Your task to perform on an android device: Clear the cart on target.com. Image 0: 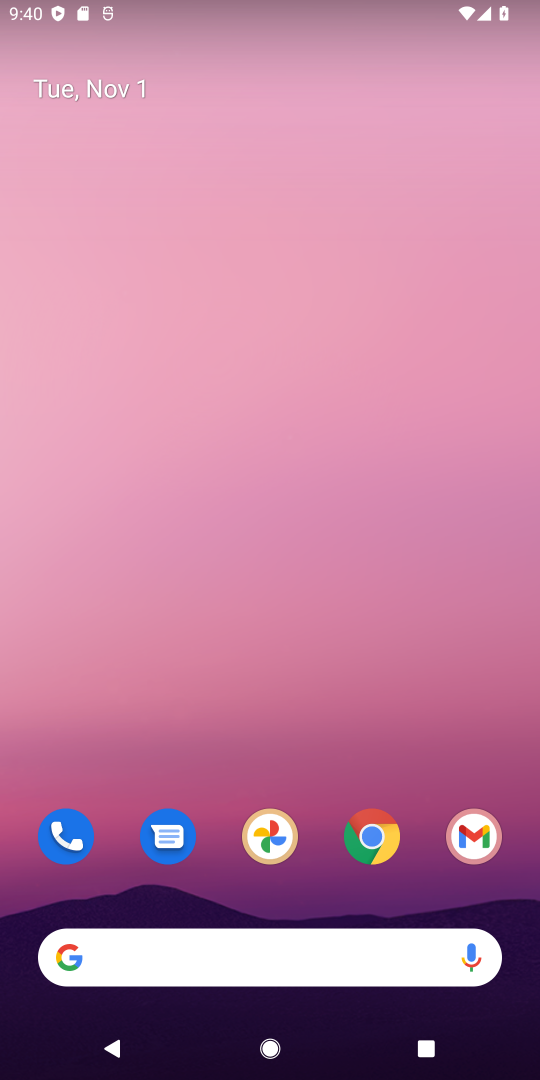
Step 0: click (368, 842)
Your task to perform on an android device: Clear the cart on target.com. Image 1: 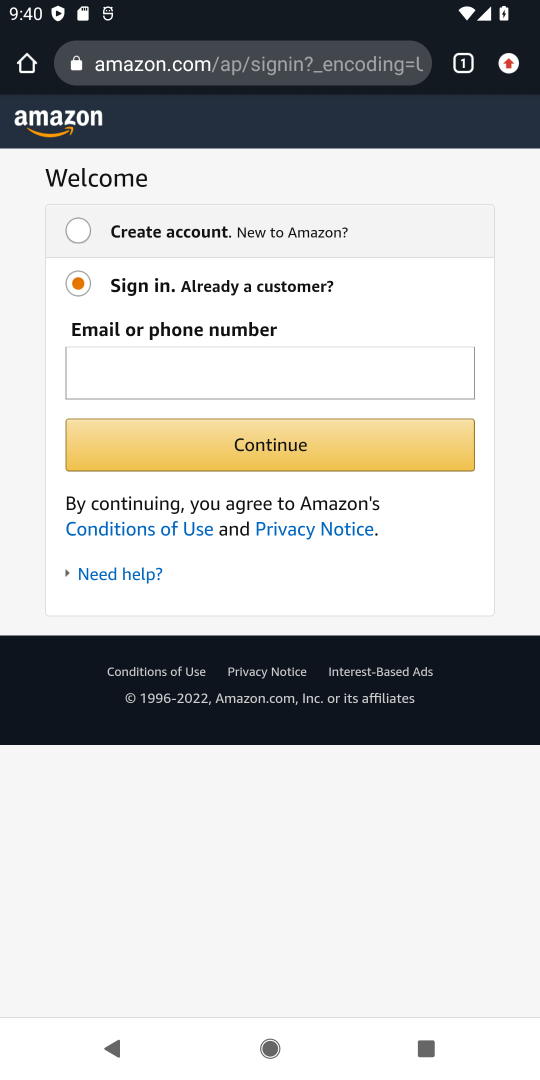
Step 1: click (341, 69)
Your task to perform on an android device: Clear the cart on target.com. Image 2: 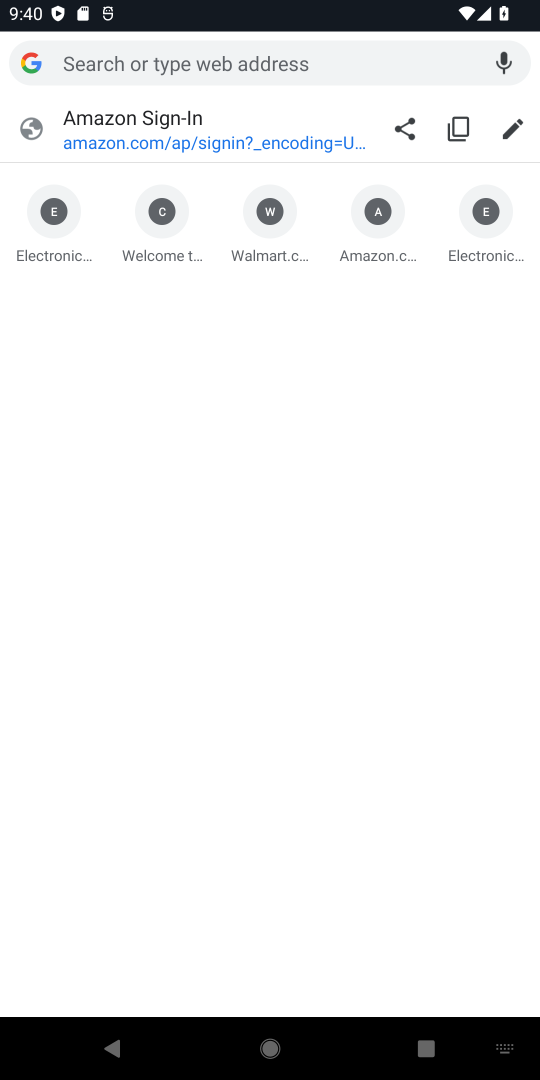
Step 2: type "target.com"
Your task to perform on an android device: Clear the cart on target.com. Image 3: 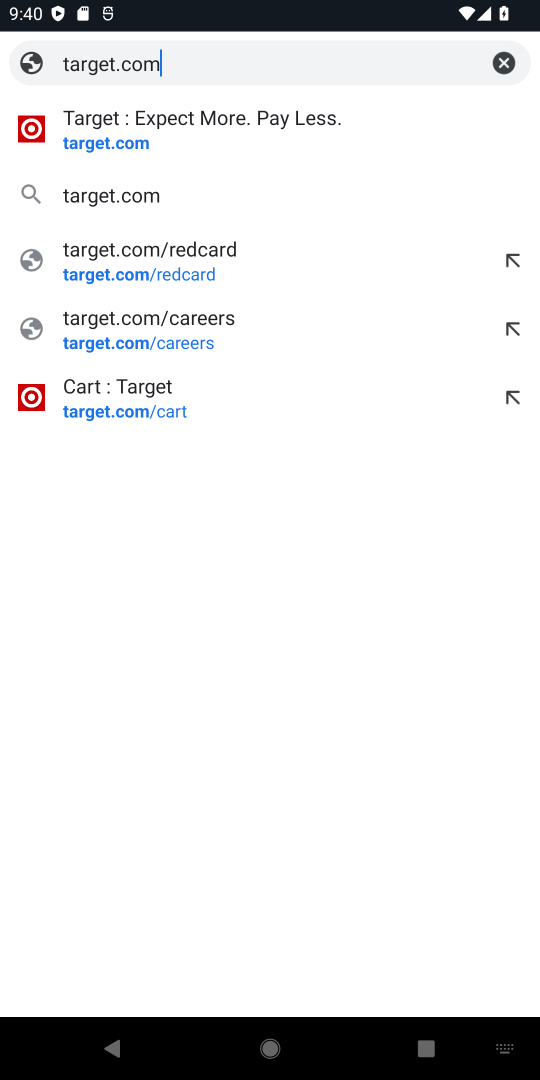
Step 3: click (227, 131)
Your task to perform on an android device: Clear the cart on target.com. Image 4: 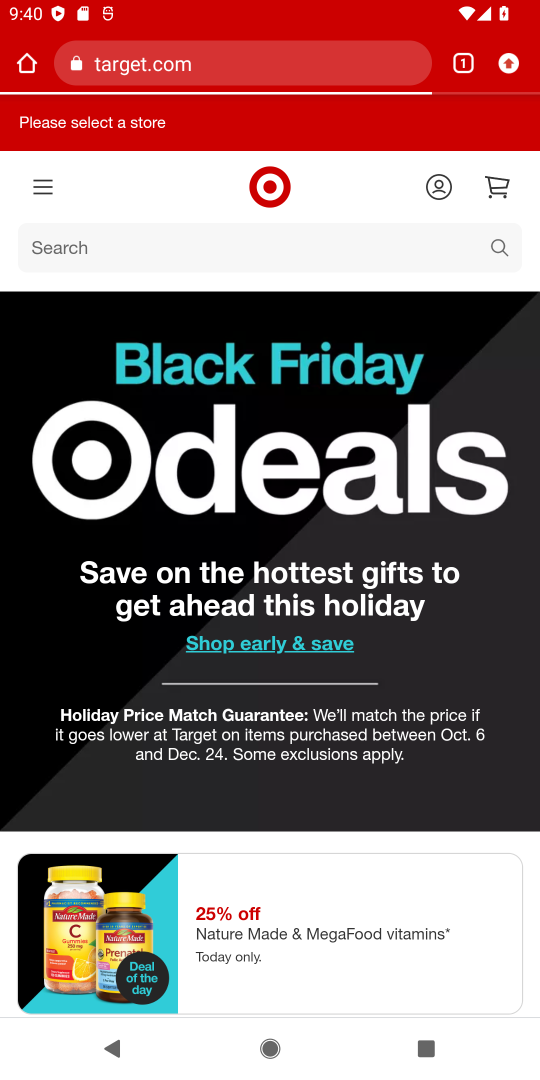
Step 4: click (216, 240)
Your task to perform on an android device: Clear the cart on target.com. Image 5: 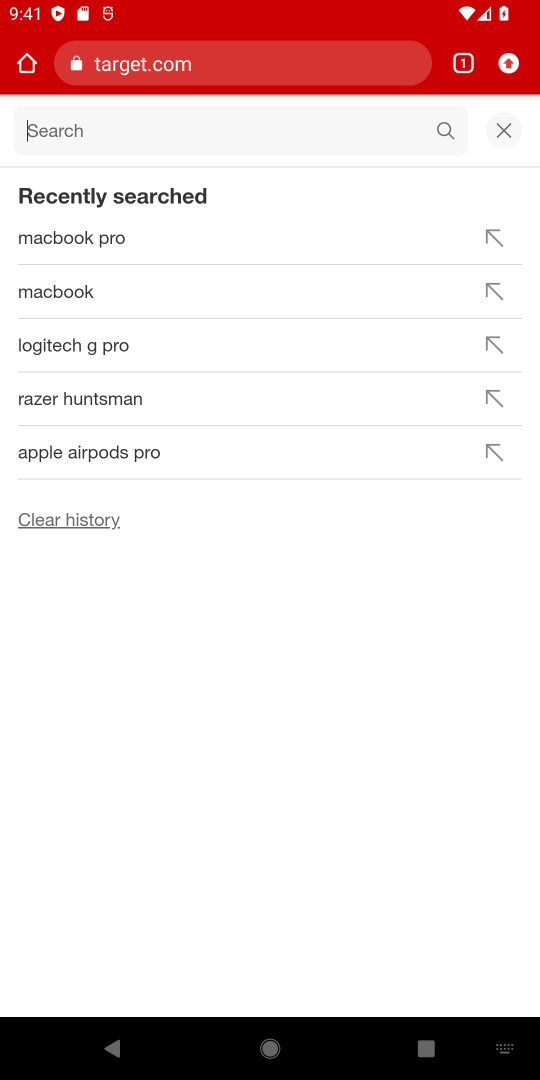
Step 5: click (519, 119)
Your task to perform on an android device: Clear the cart on target.com. Image 6: 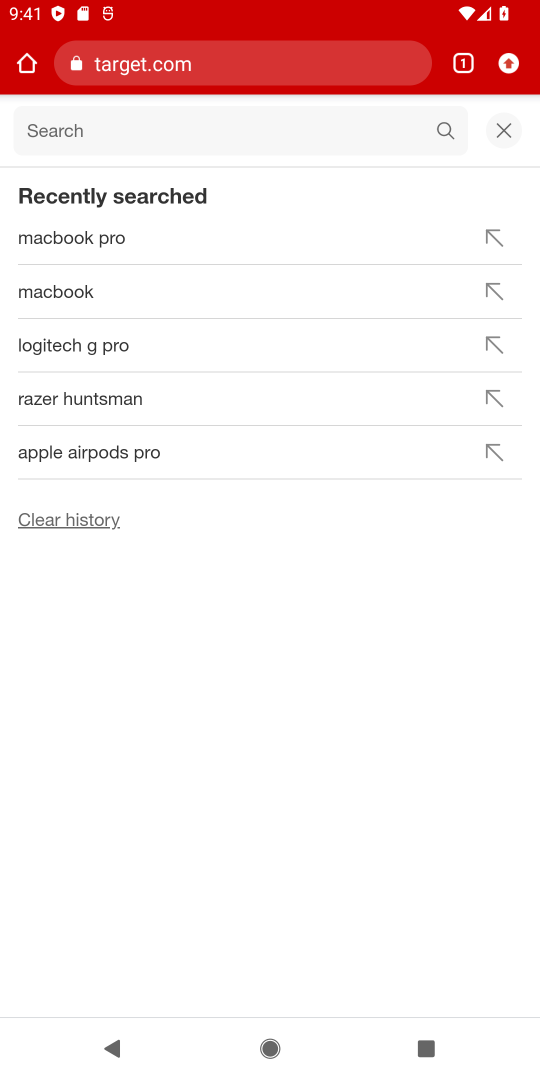
Step 6: click (503, 127)
Your task to perform on an android device: Clear the cart on target.com. Image 7: 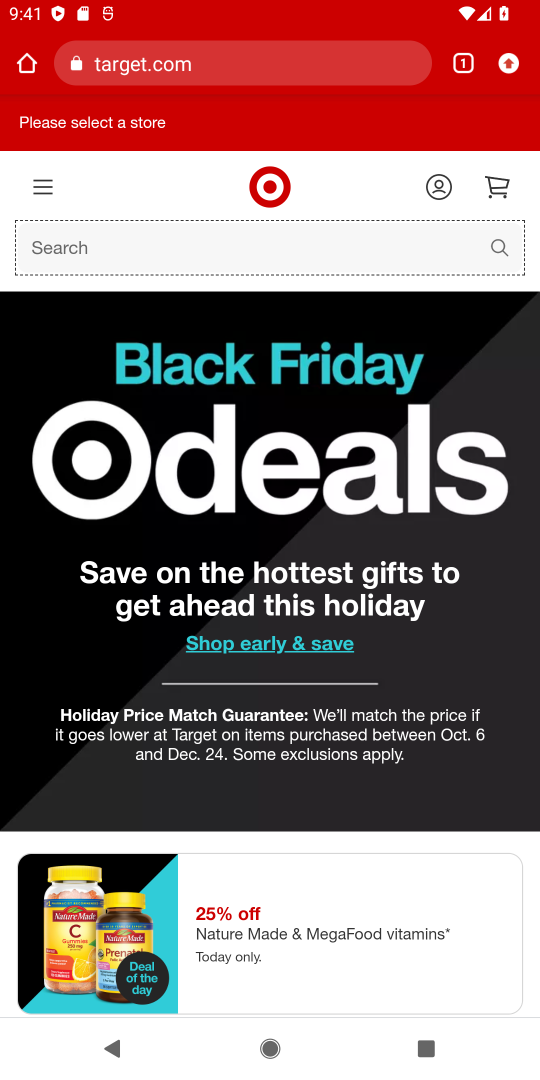
Step 7: click (503, 184)
Your task to perform on an android device: Clear the cart on target.com. Image 8: 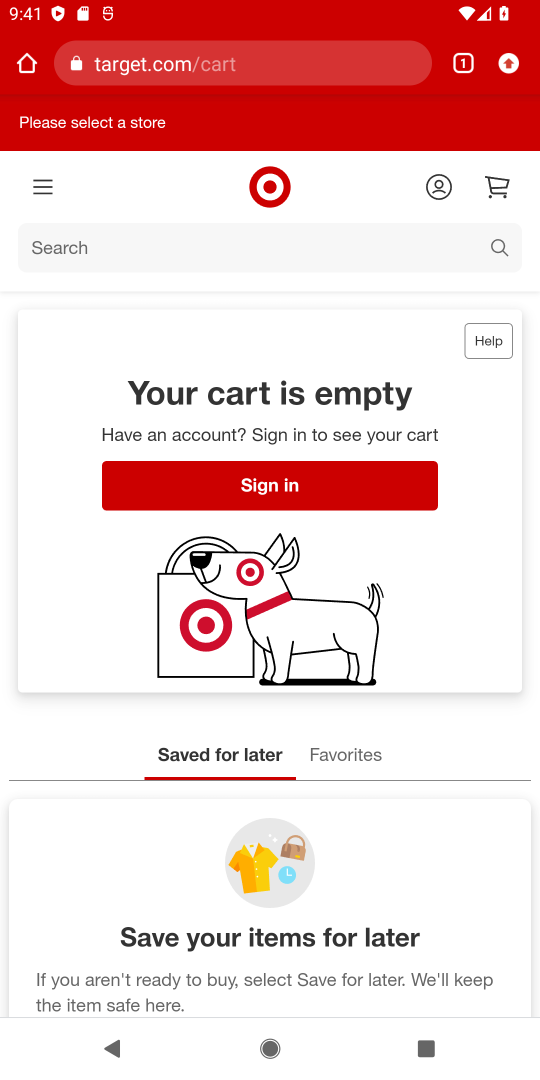
Step 8: press back button
Your task to perform on an android device: Clear the cart on target.com. Image 9: 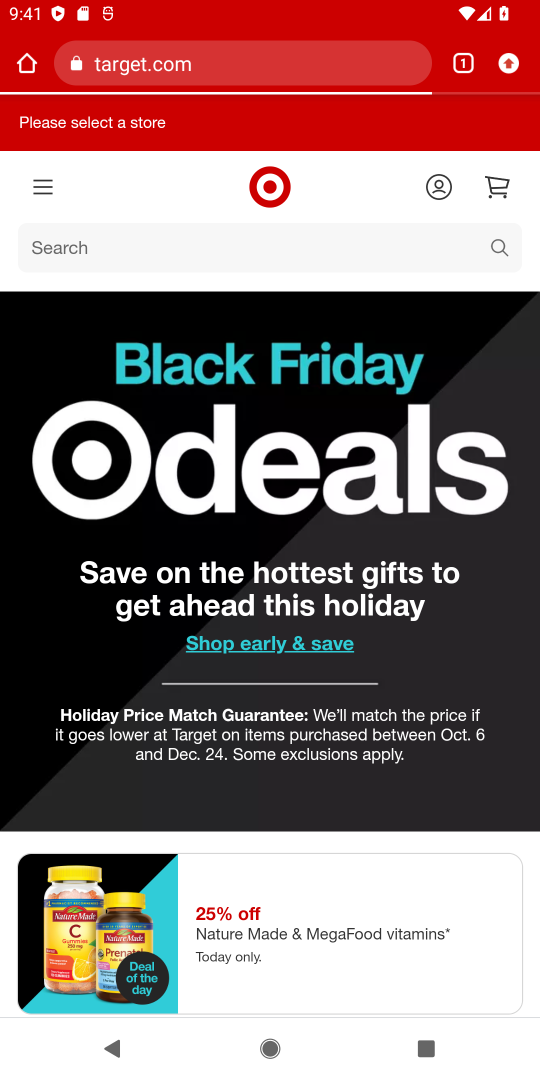
Step 9: drag from (464, 730) to (470, 328)
Your task to perform on an android device: Clear the cart on target.com. Image 10: 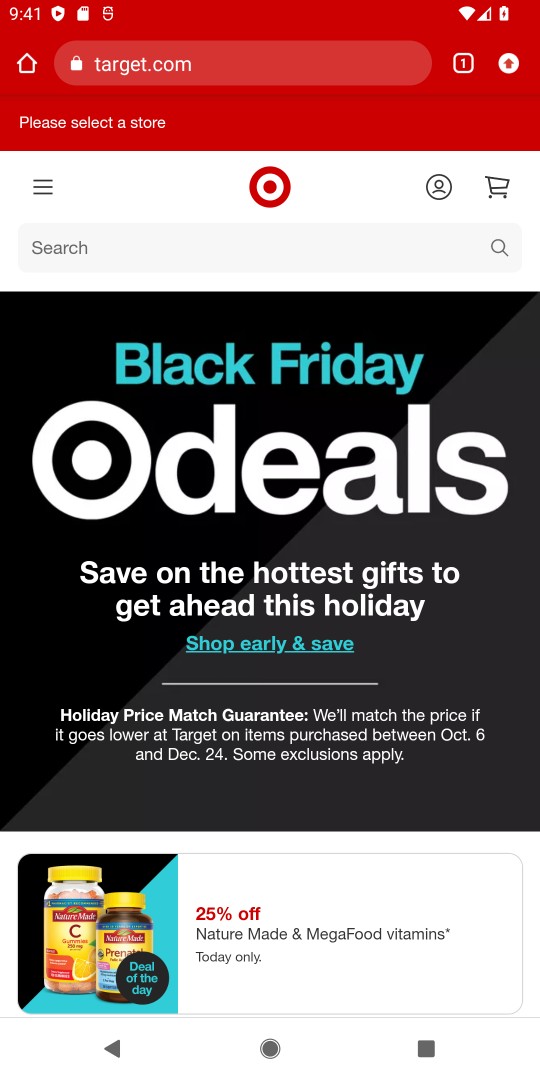
Step 10: drag from (372, 706) to (393, 338)
Your task to perform on an android device: Clear the cart on target.com. Image 11: 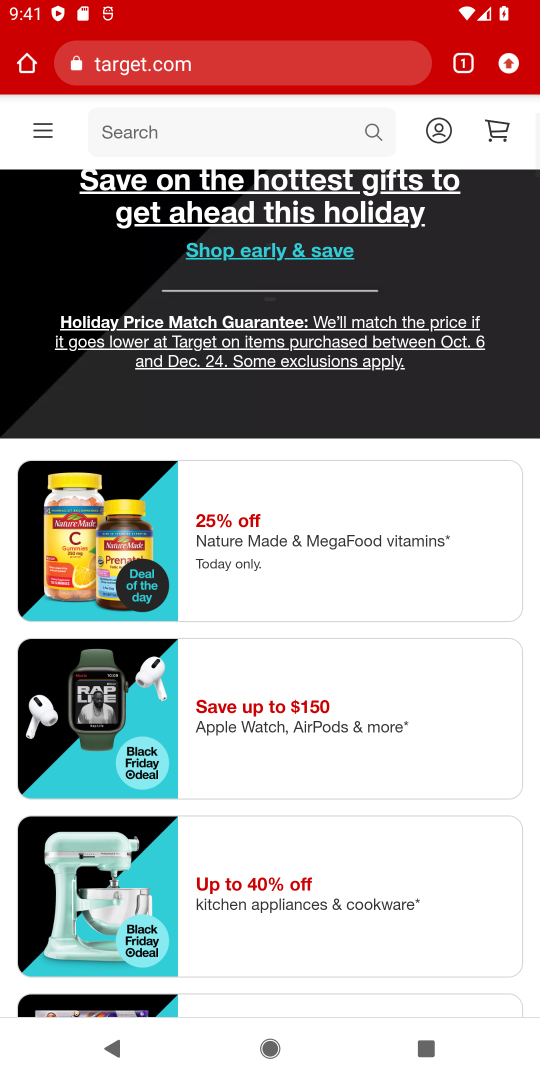
Step 11: drag from (341, 600) to (368, 363)
Your task to perform on an android device: Clear the cart on target.com. Image 12: 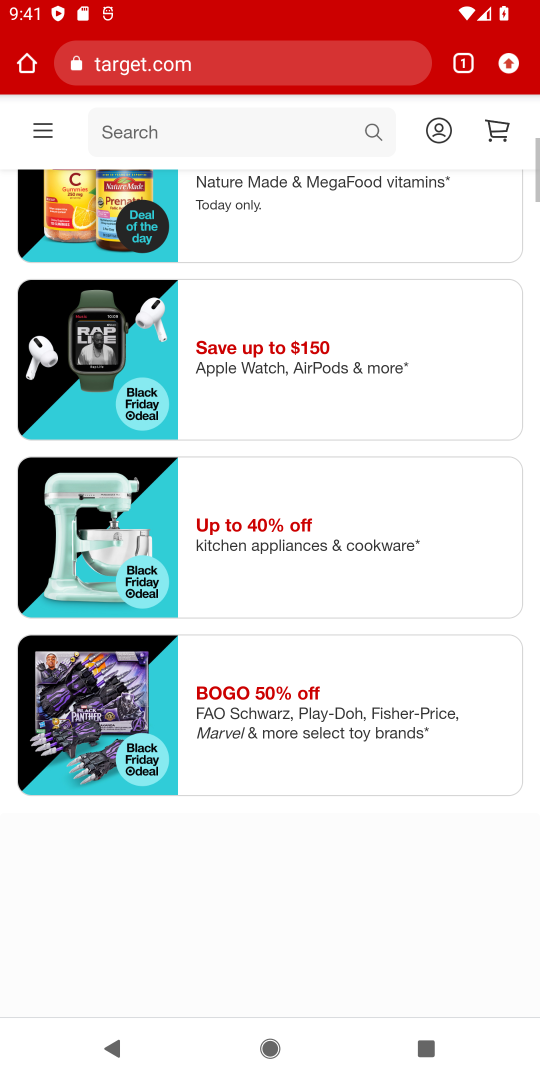
Step 12: click (390, 267)
Your task to perform on an android device: Clear the cart on target.com. Image 13: 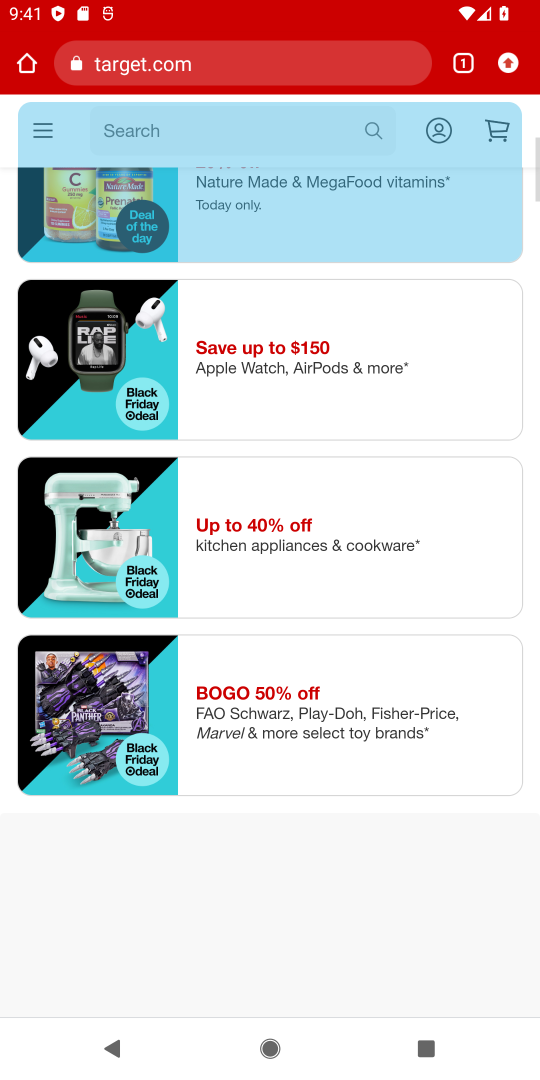
Step 13: drag from (366, 768) to (378, 199)
Your task to perform on an android device: Clear the cart on target.com. Image 14: 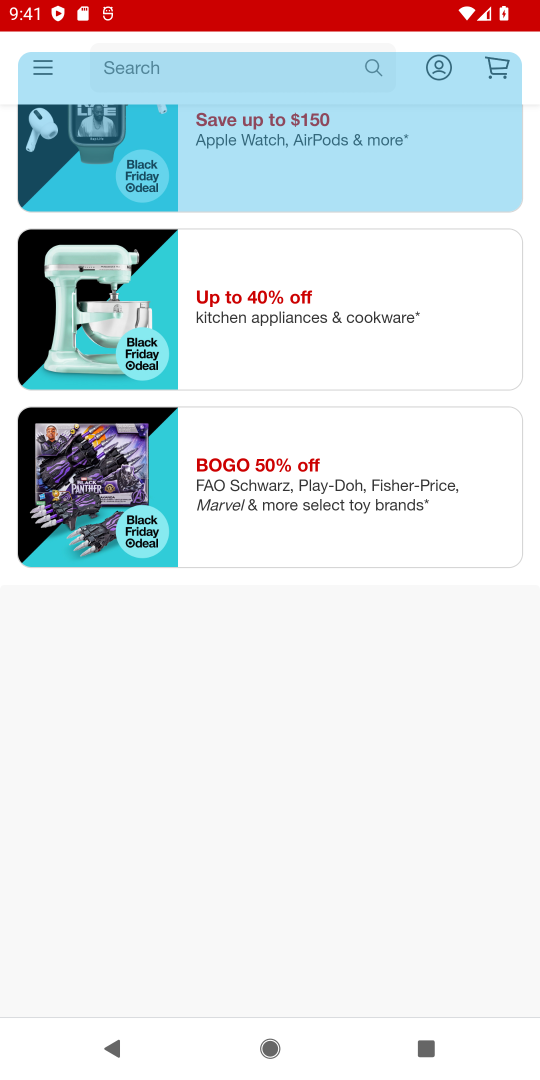
Step 14: drag from (274, 717) to (327, 231)
Your task to perform on an android device: Clear the cart on target.com. Image 15: 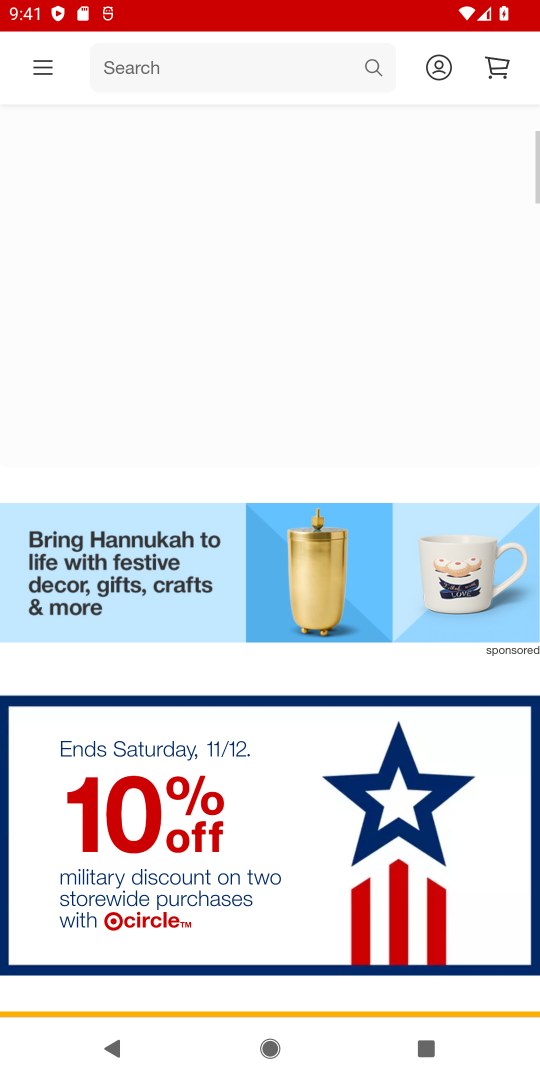
Step 15: drag from (300, 617) to (356, 295)
Your task to perform on an android device: Clear the cart on target.com. Image 16: 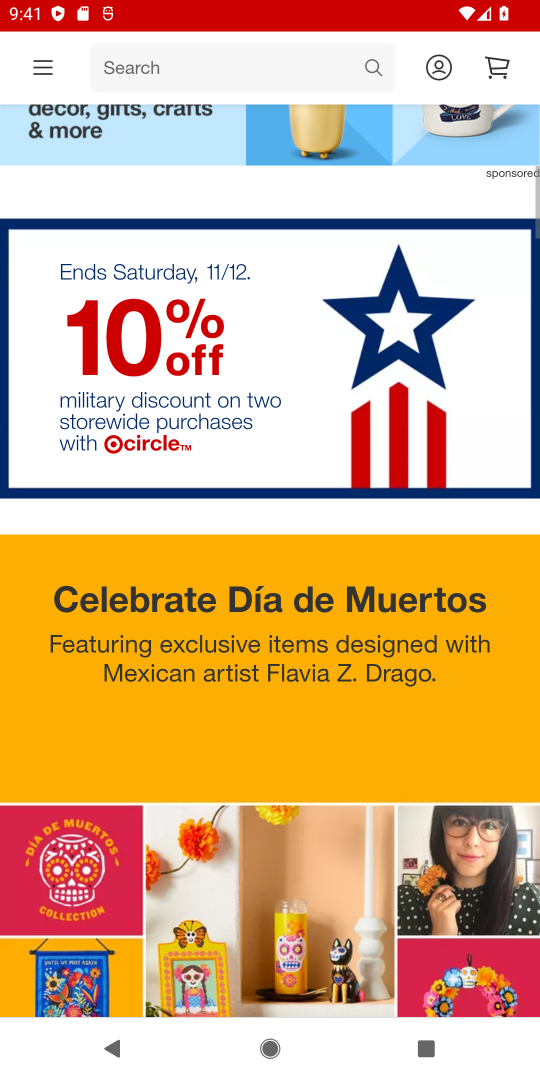
Step 16: drag from (307, 586) to (346, 229)
Your task to perform on an android device: Clear the cart on target.com. Image 17: 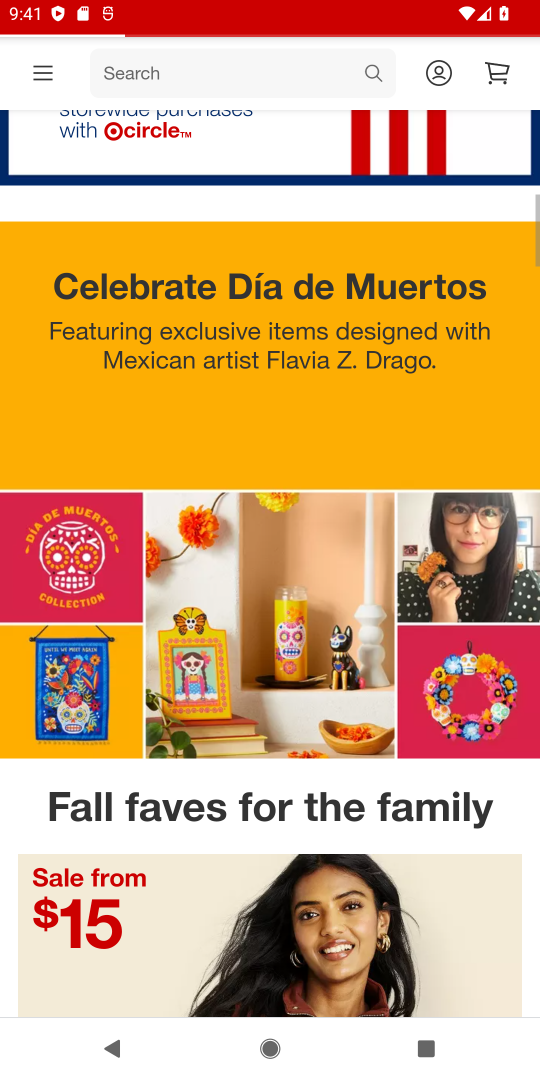
Step 17: drag from (307, 521) to (362, 293)
Your task to perform on an android device: Clear the cart on target.com. Image 18: 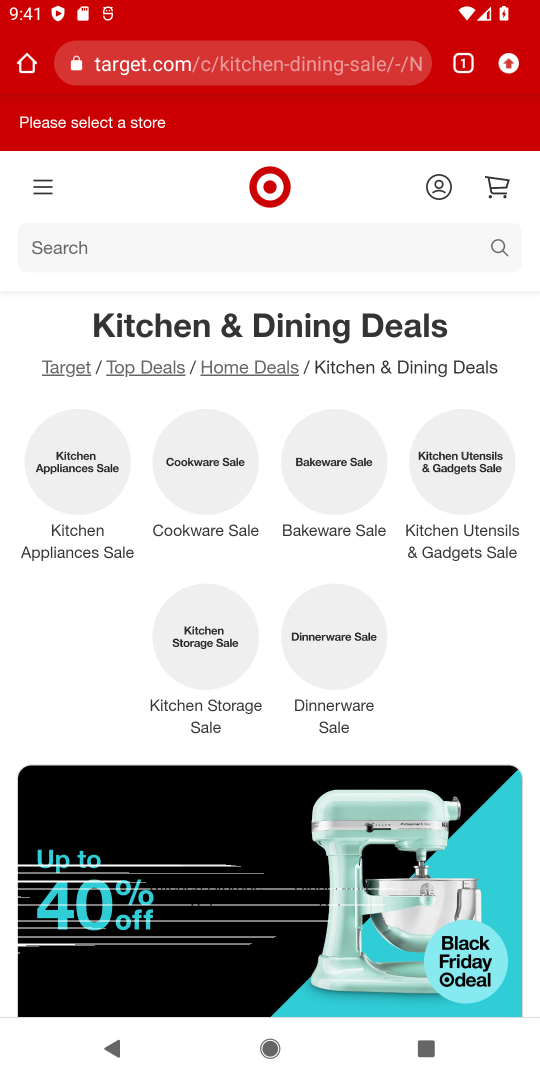
Step 18: press back button
Your task to perform on an android device: Clear the cart on target.com. Image 19: 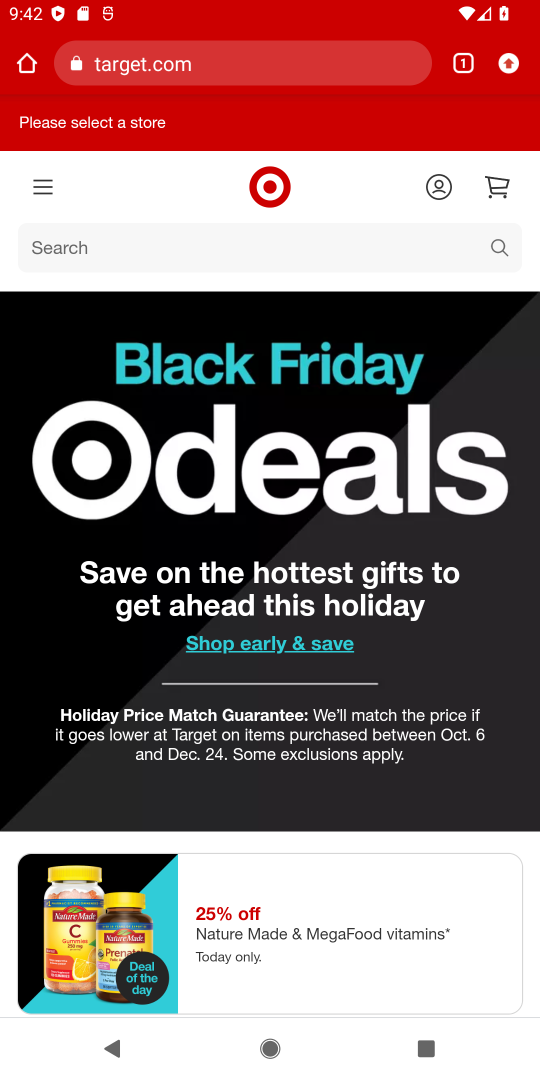
Step 19: drag from (364, 796) to (449, 279)
Your task to perform on an android device: Clear the cart on target.com. Image 20: 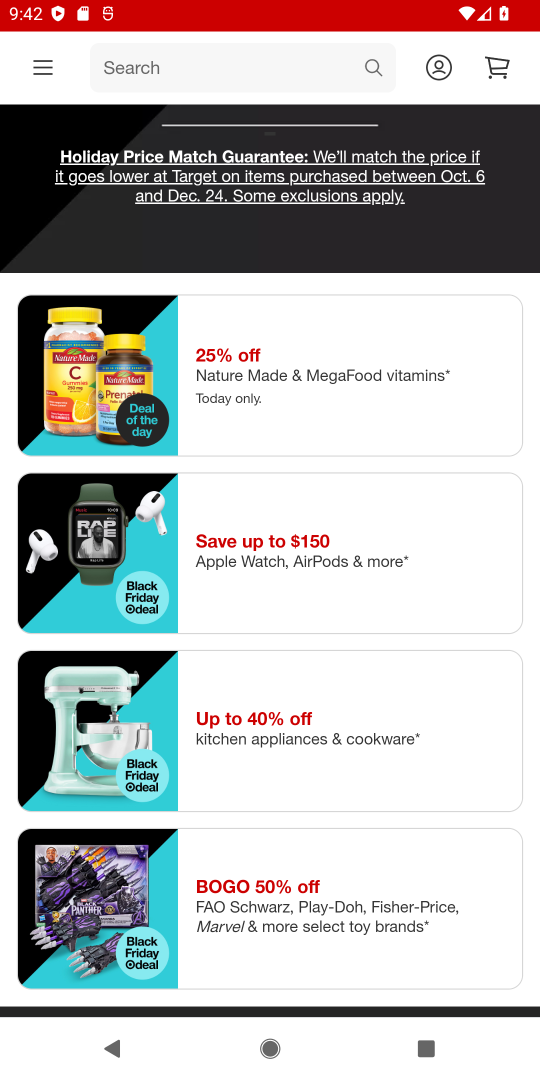
Step 20: drag from (346, 706) to (429, 335)
Your task to perform on an android device: Clear the cart on target.com. Image 21: 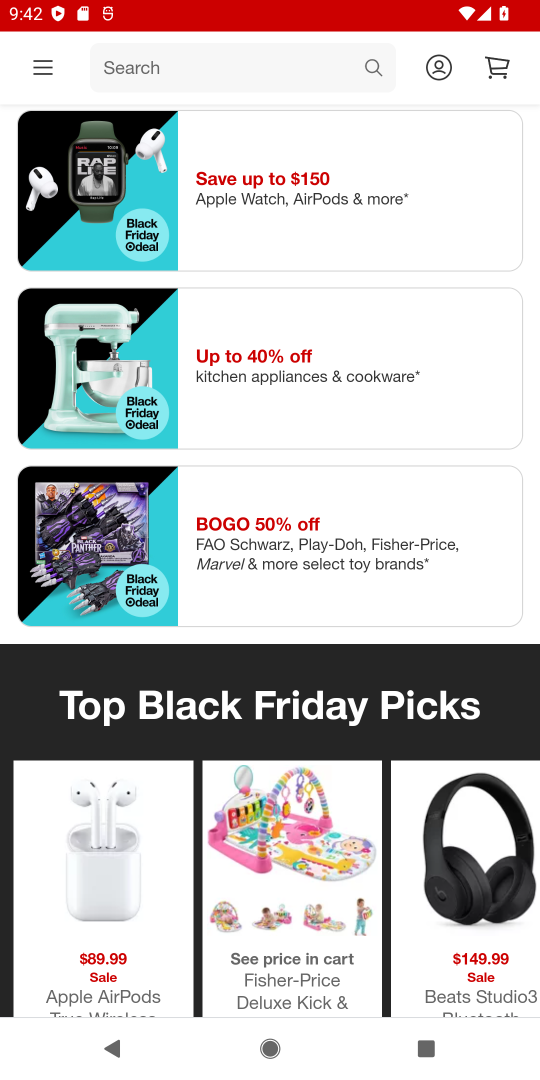
Step 21: drag from (337, 484) to (382, 285)
Your task to perform on an android device: Clear the cart on target.com. Image 22: 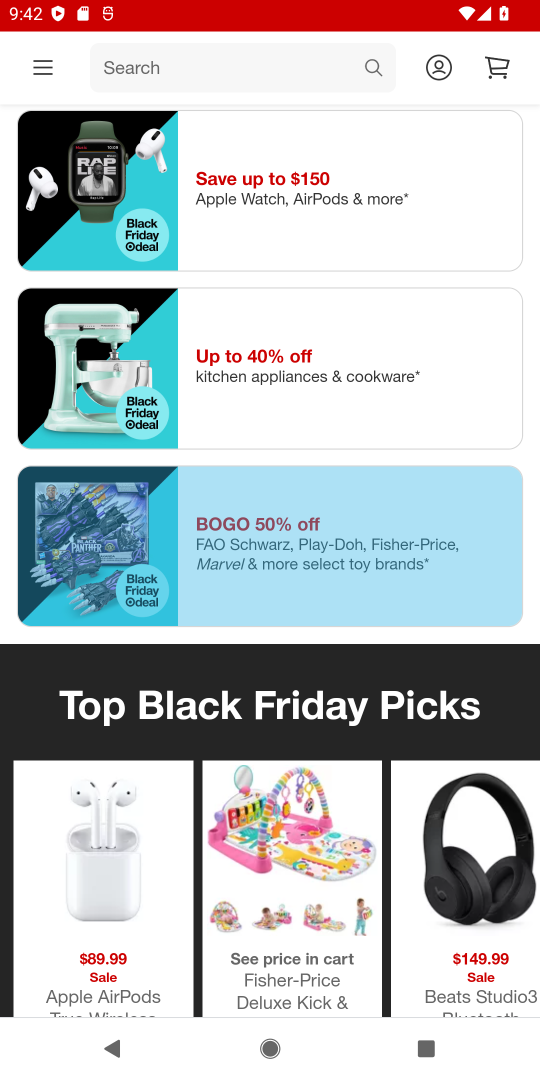
Step 22: drag from (381, 588) to (400, 184)
Your task to perform on an android device: Clear the cart on target.com. Image 23: 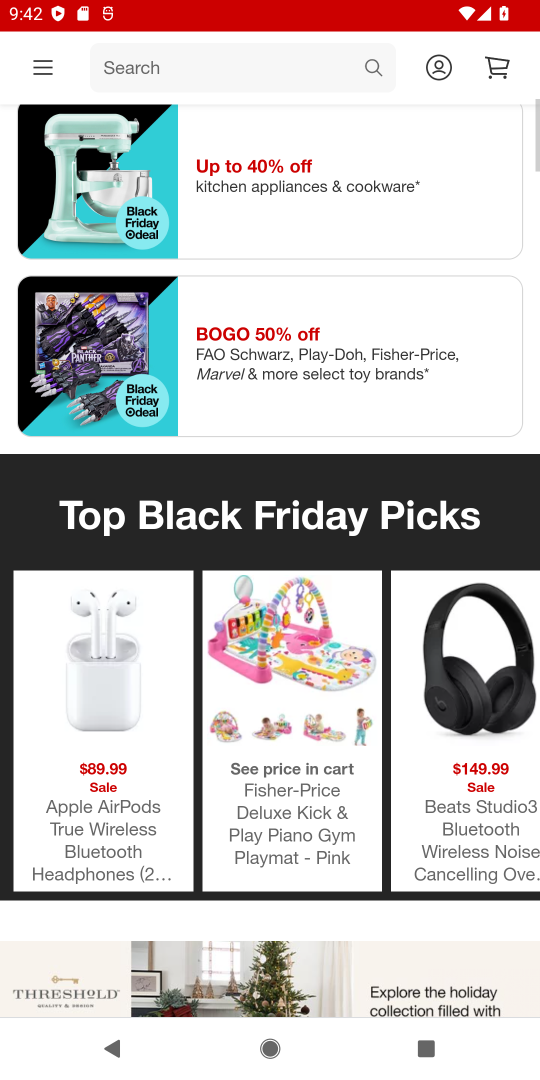
Step 23: drag from (374, 444) to (434, 185)
Your task to perform on an android device: Clear the cart on target.com. Image 24: 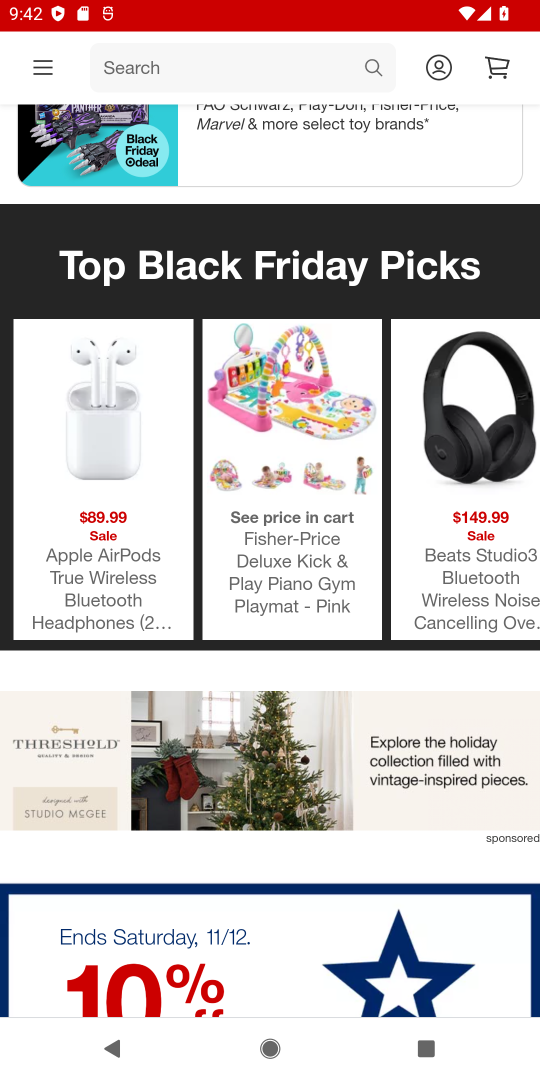
Step 24: drag from (272, 636) to (338, 234)
Your task to perform on an android device: Clear the cart on target.com. Image 25: 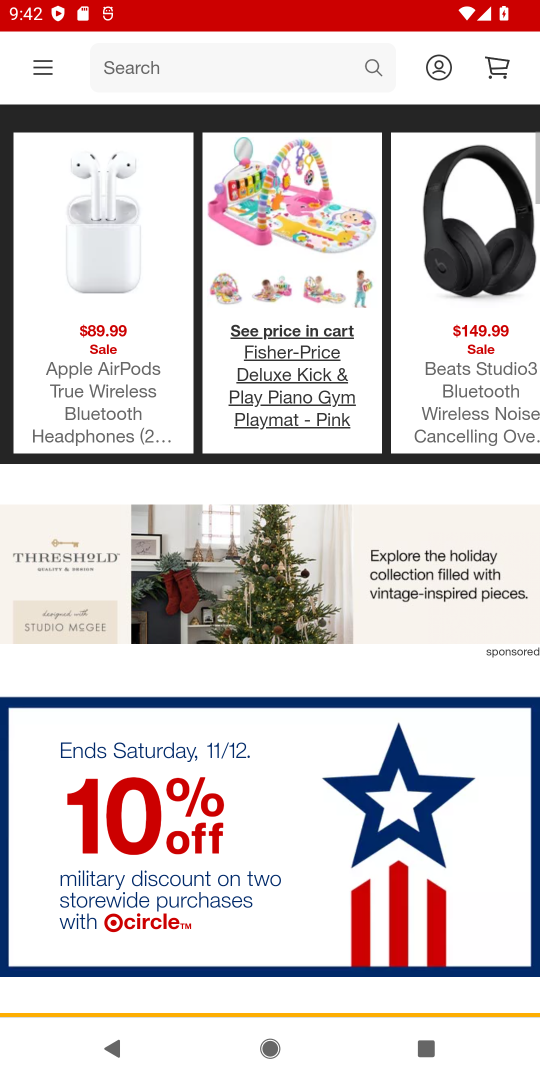
Step 25: drag from (295, 508) to (328, 271)
Your task to perform on an android device: Clear the cart on target.com. Image 26: 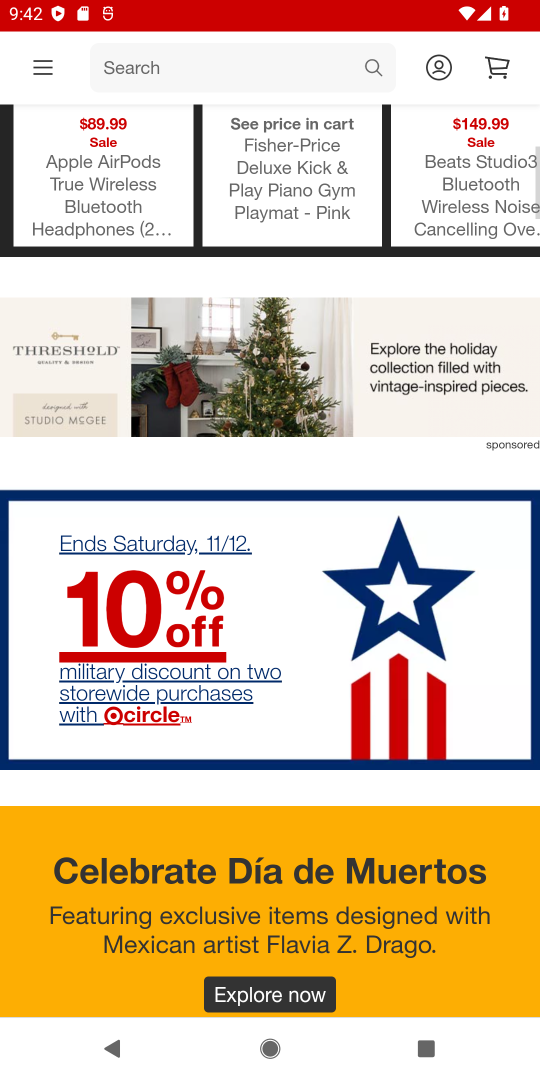
Step 26: drag from (316, 412) to (363, 223)
Your task to perform on an android device: Clear the cart on target.com. Image 27: 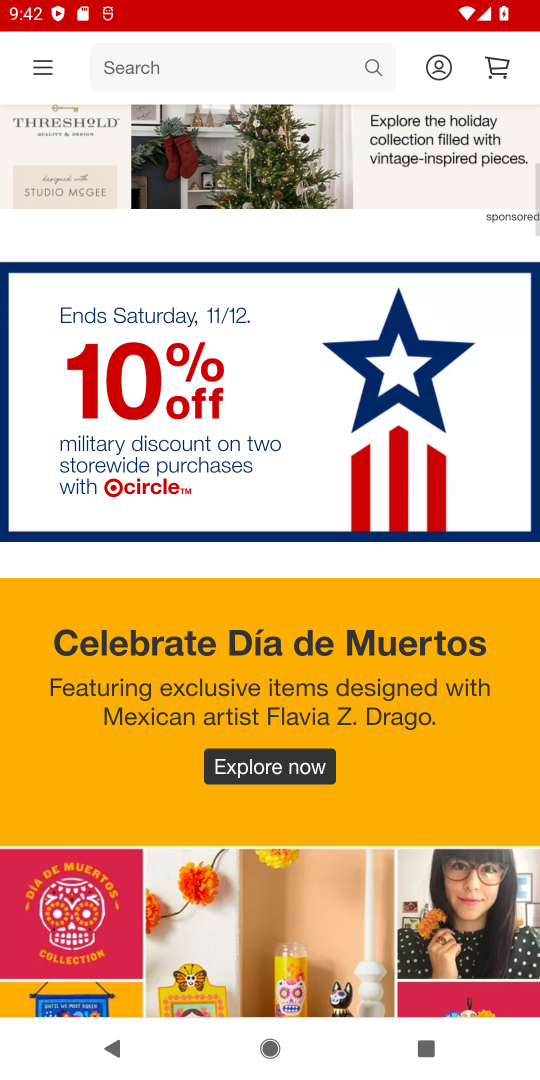
Step 27: click (381, 198)
Your task to perform on an android device: Clear the cart on target.com. Image 28: 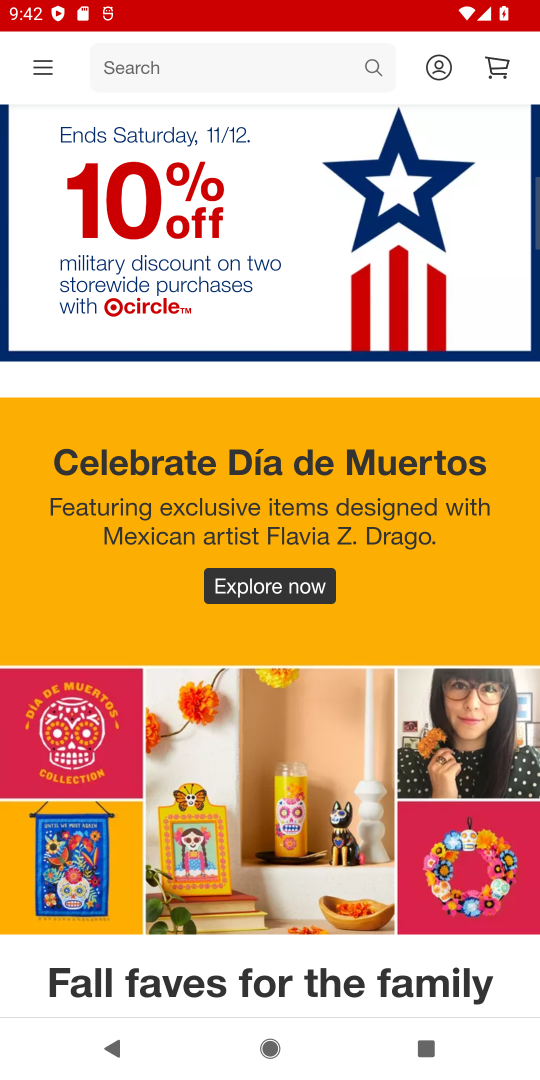
Step 28: drag from (345, 382) to (376, 186)
Your task to perform on an android device: Clear the cart on target.com. Image 29: 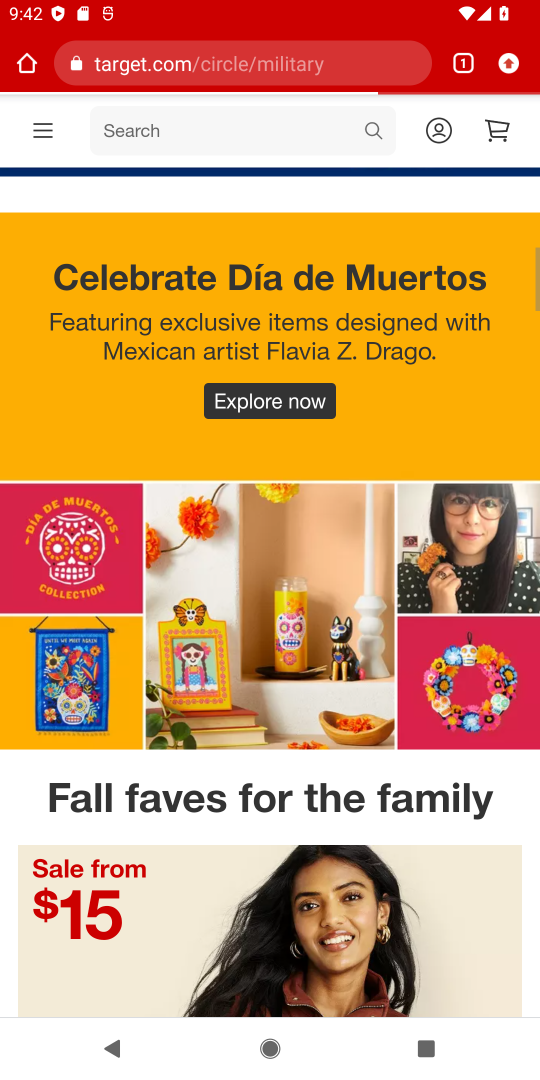
Step 29: drag from (355, 288) to (388, 154)
Your task to perform on an android device: Clear the cart on target.com. Image 30: 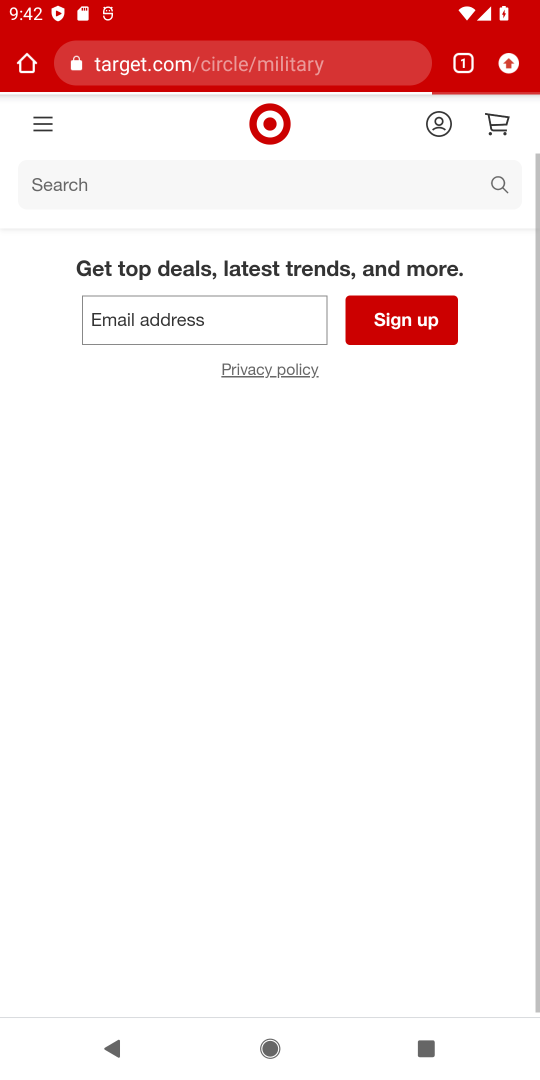
Step 30: drag from (341, 291) to (378, 136)
Your task to perform on an android device: Clear the cart on target.com. Image 31: 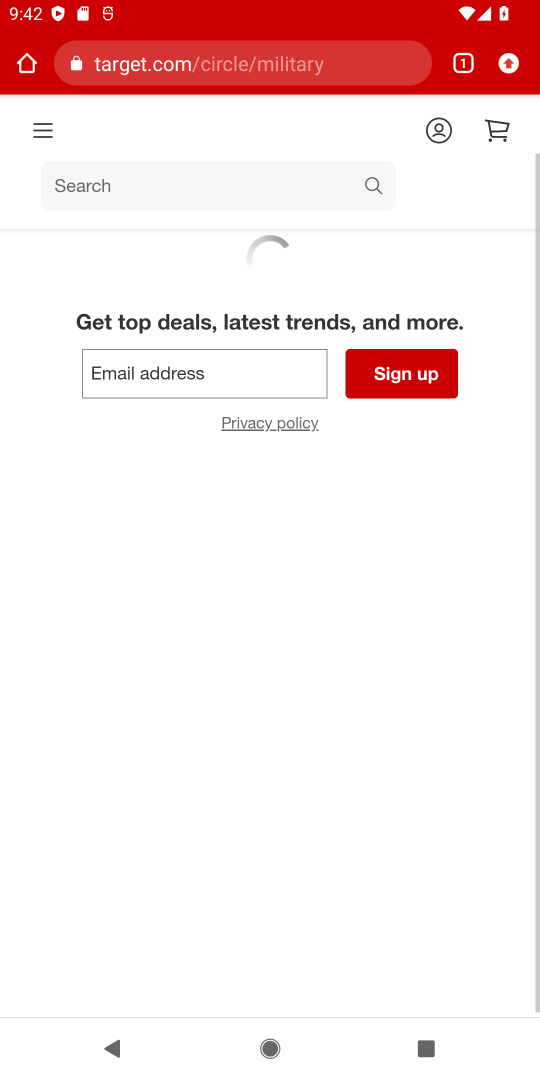
Step 31: drag from (382, 242) to (401, 144)
Your task to perform on an android device: Clear the cart on target.com. Image 32: 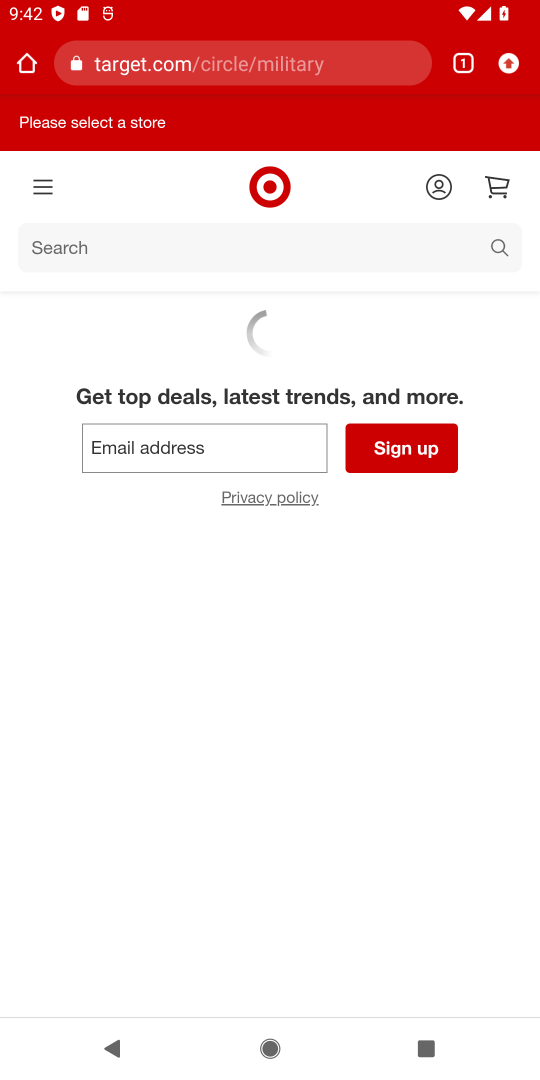
Step 32: drag from (368, 337) to (412, 145)
Your task to perform on an android device: Clear the cart on target.com. Image 33: 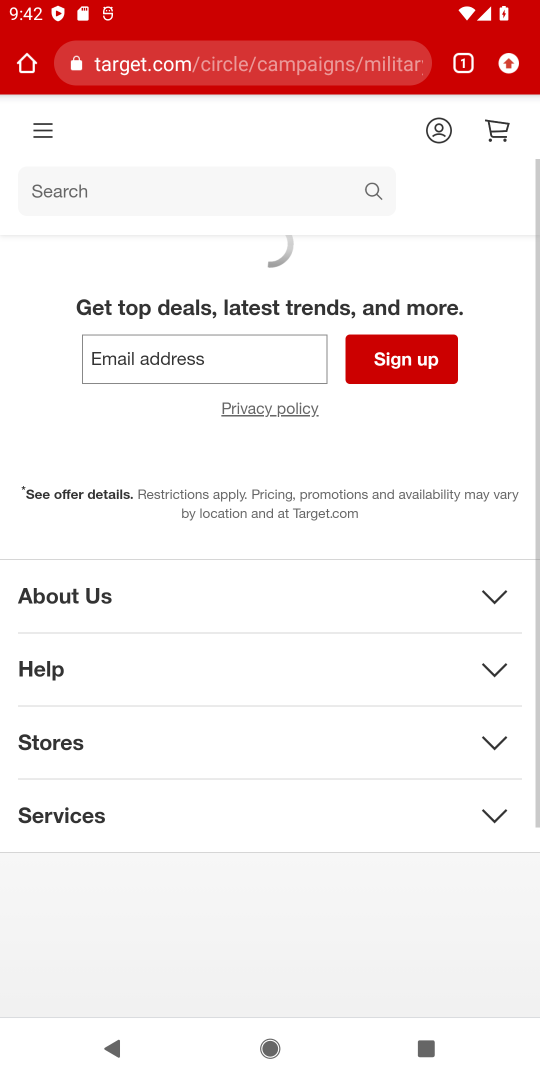
Step 33: drag from (371, 282) to (408, 124)
Your task to perform on an android device: Clear the cart on target.com. Image 34: 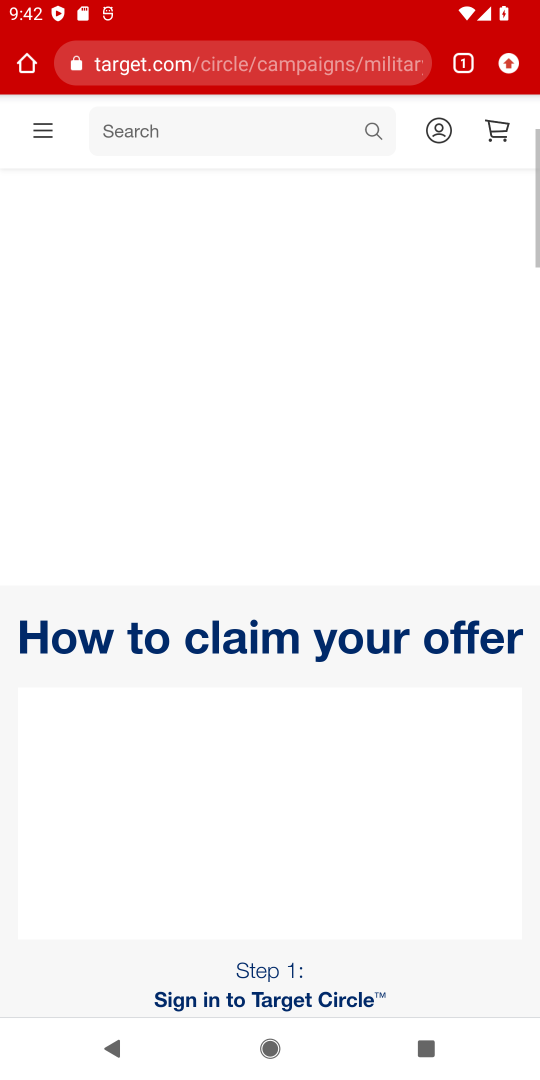
Step 34: drag from (351, 330) to (396, 137)
Your task to perform on an android device: Clear the cart on target.com. Image 35: 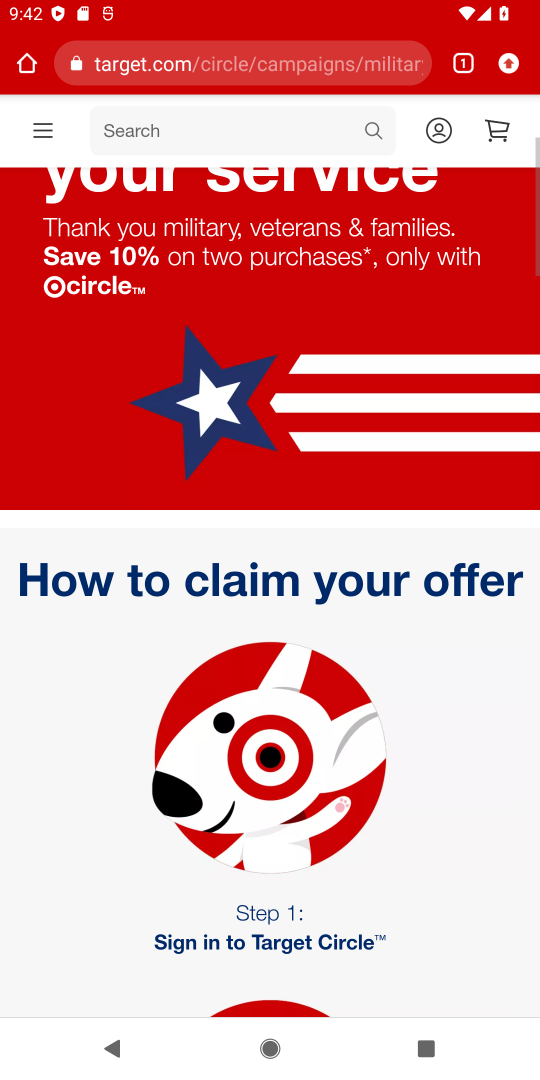
Step 35: drag from (385, 228) to (435, 192)
Your task to perform on an android device: Clear the cart on target.com. Image 36: 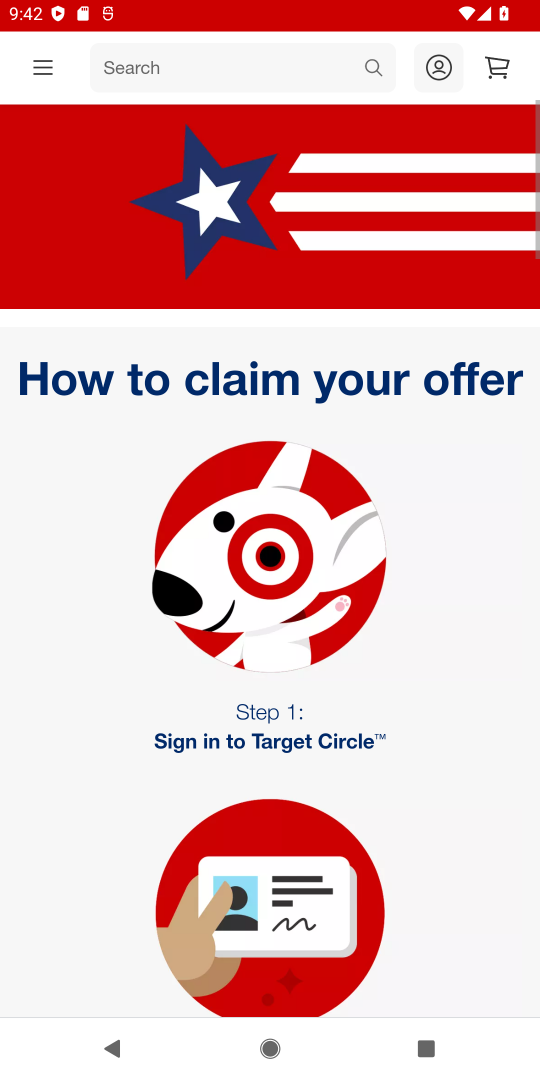
Step 36: drag from (359, 484) to (388, 283)
Your task to perform on an android device: Clear the cart on target.com. Image 37: 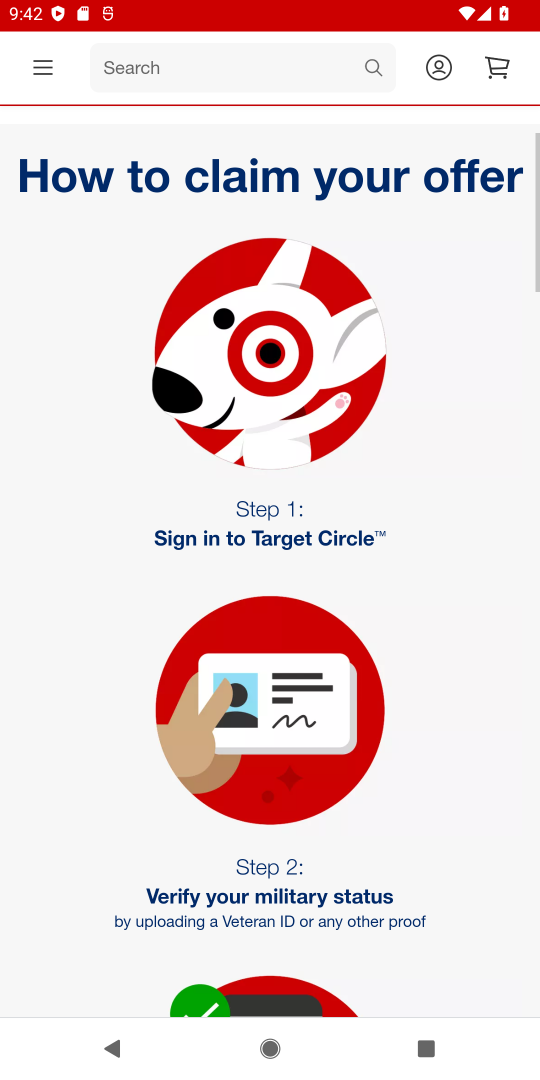
Step 37: click (409, 302)
Your task to perform on an android device: Clear the cart on target.com. Image 38: 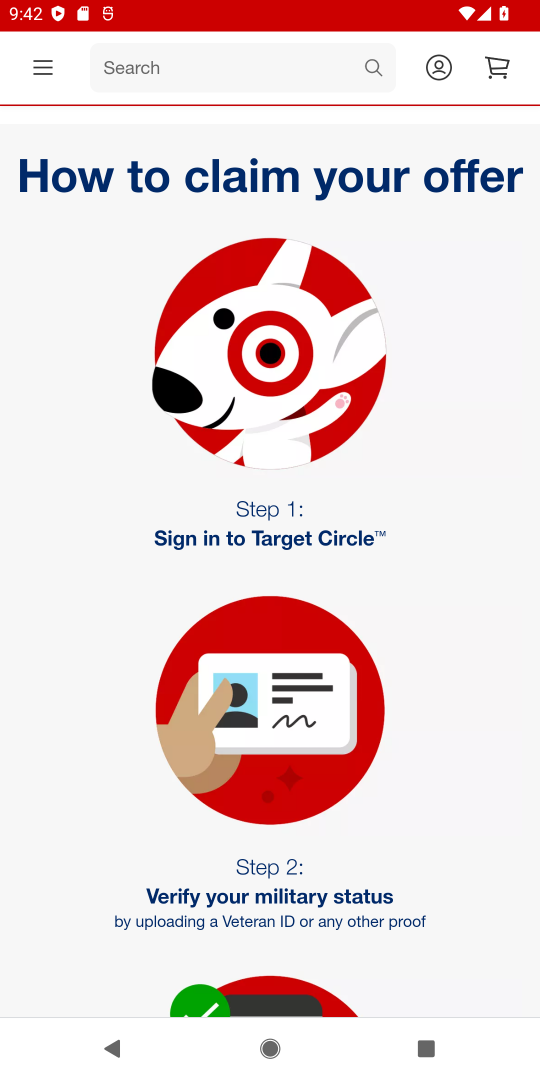
Step 38: drag from (398, 455) to (444, 304)
Your task to perform on an android device: Clear the cart on target.com. Image 39: 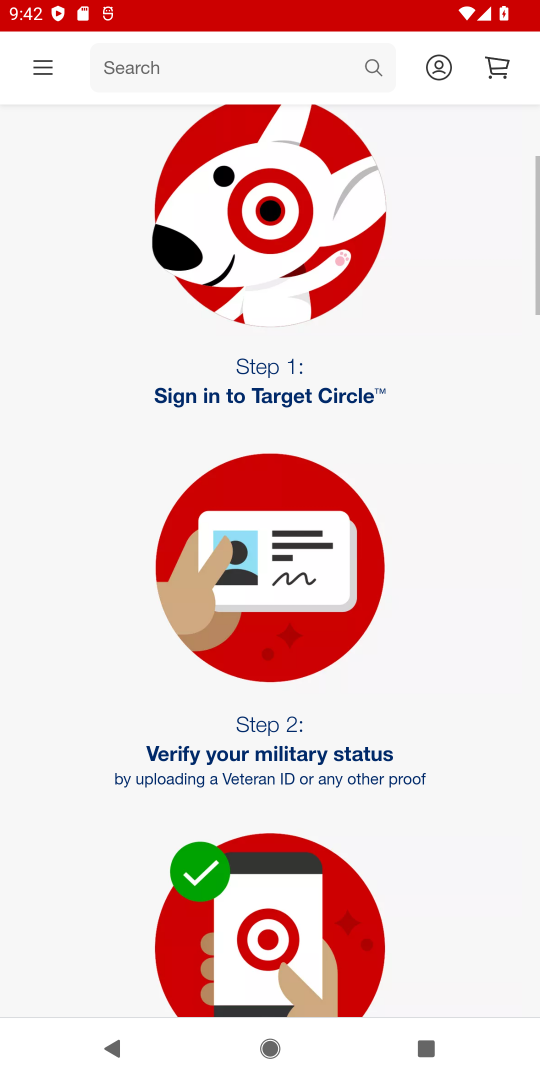
Step 39: drag from (388, 439) to (419, 300)
Your task to perform on an android device: Clear the cart on target.com. Image 40: 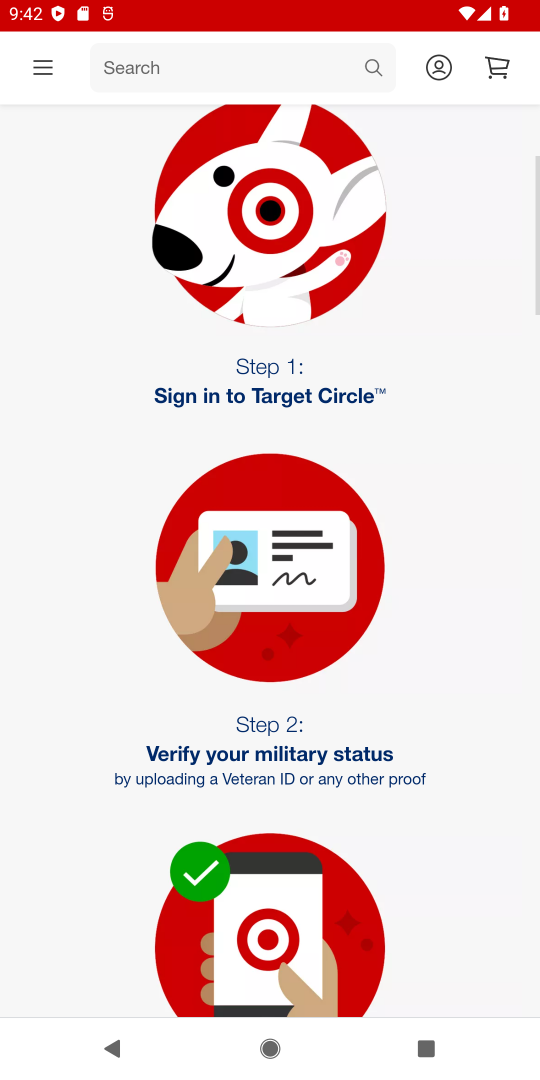
Step 40: click (386, 274)
Your task to perform on an android device: Clear the cart on target.com. Image 41: 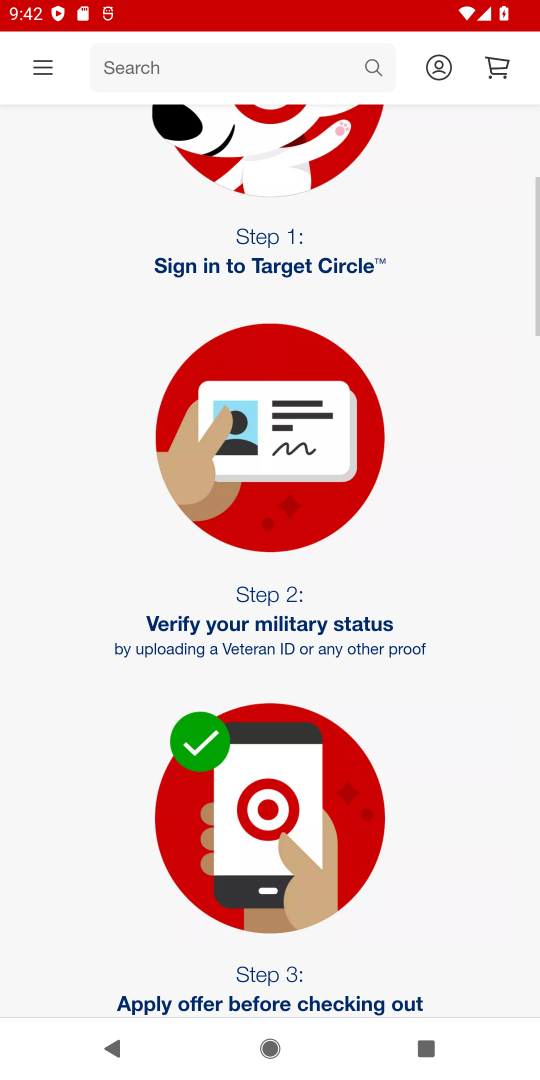
Step 41: drag from (346, 414) to (373, 277)
Your task to perform on an android device: Clear the cart on target.com. Image 42: 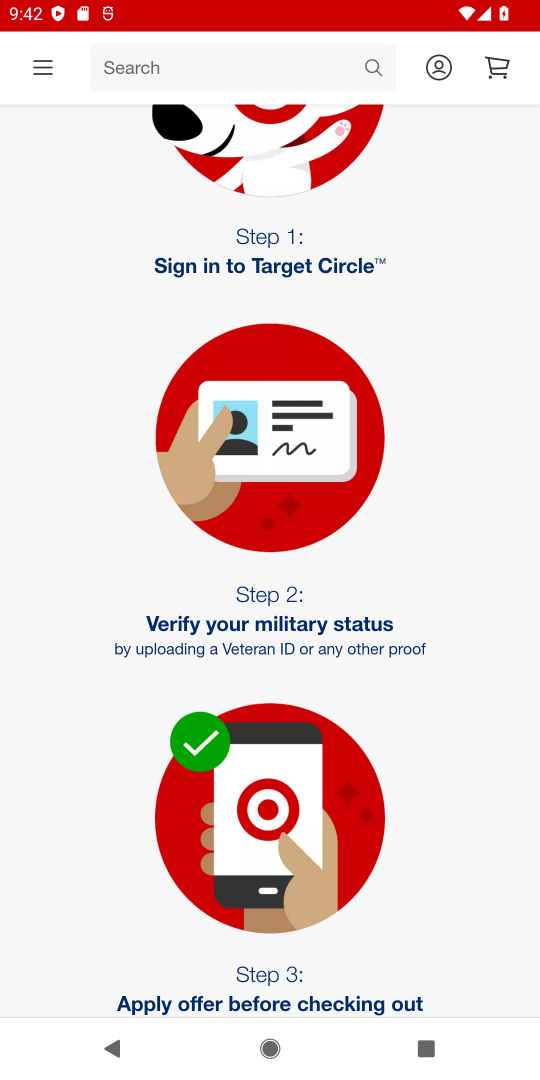
Step 42: drag from (360, 460) to (398, 275)
Your task to perform on an android device: Clear the cart on target.com. Image 43: 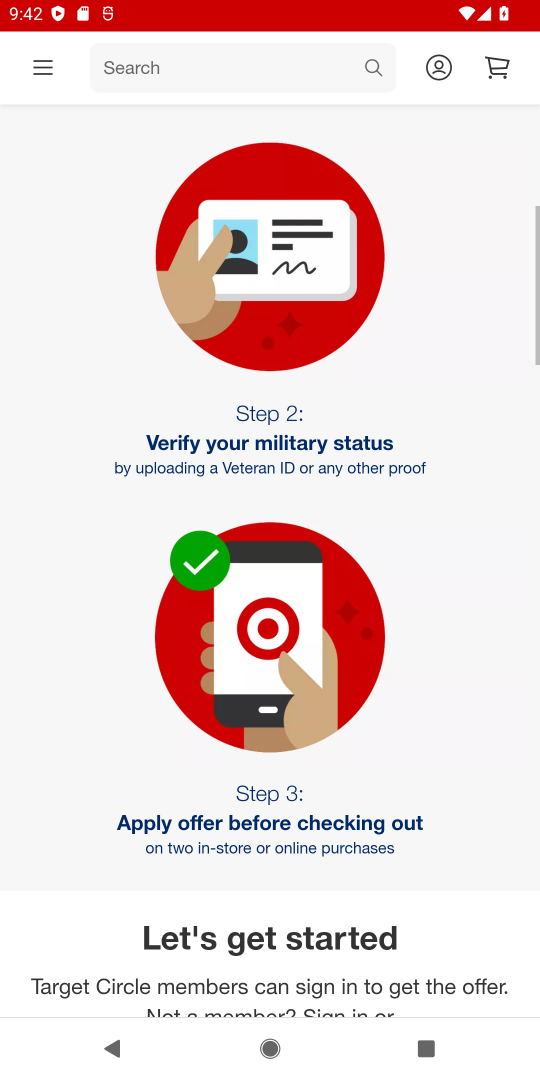
Step 43: drag from (353, 455) to (390, 295)
Your task to perform on an android device: Clear the cart on target.com. Image 44: 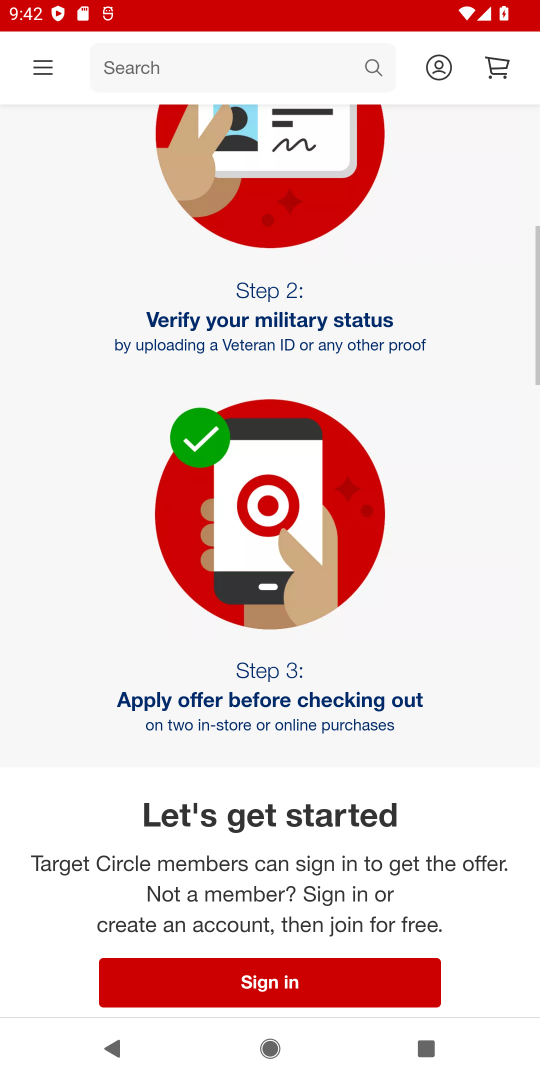
Step 44: drag from (375, 503) to (420, 317)
Your task to perform on an android device: Clear the cart on target.com. Image 45: 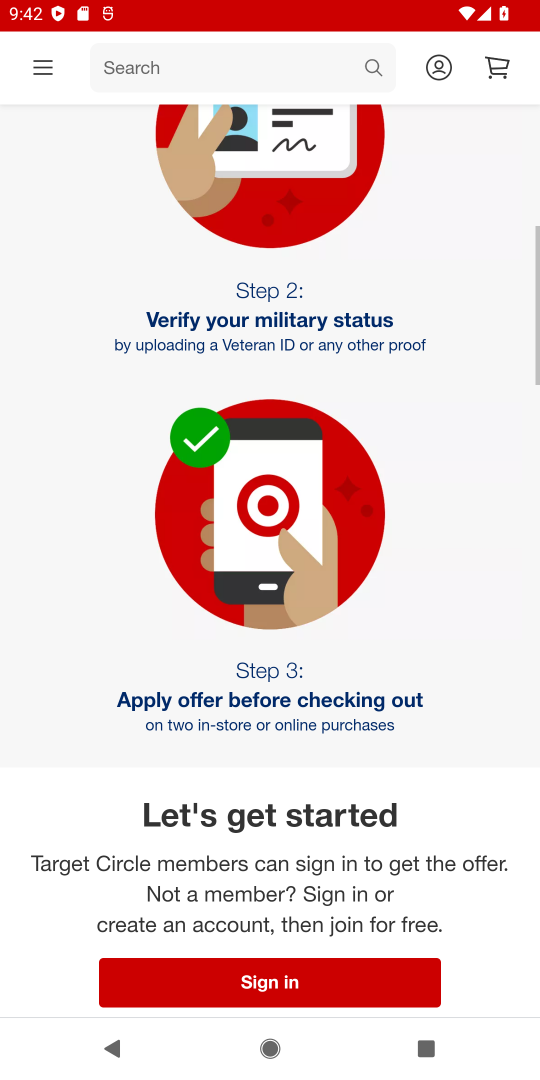
Step 45: click (464, 282)
Your task to perform on an android device: Clear the cart on target.com. Image 46: 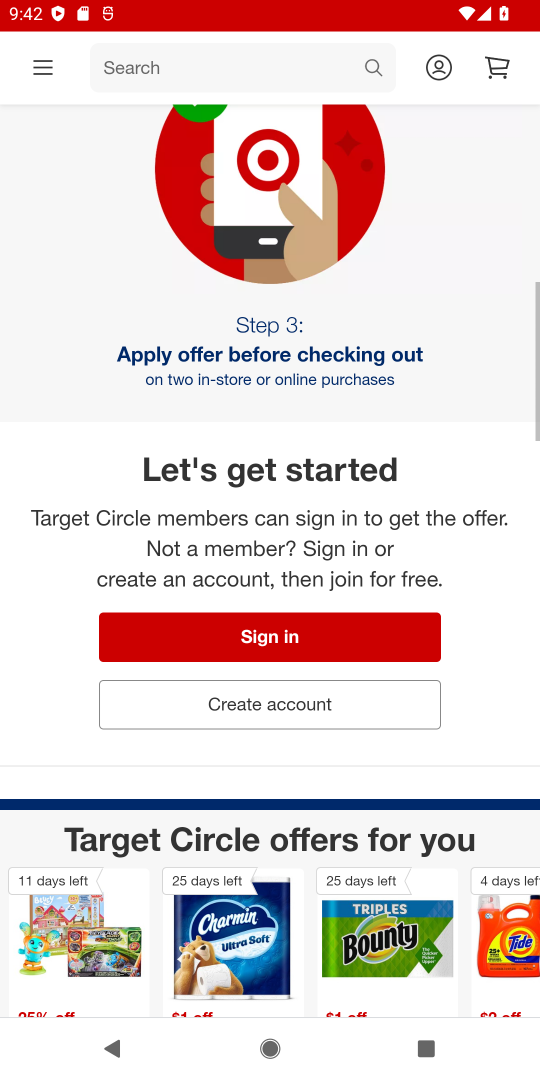
Step 46: drag from (441, 394) to (453, 286)
Your task to perform on an android device: Clear the cart on target.com. Image 47: 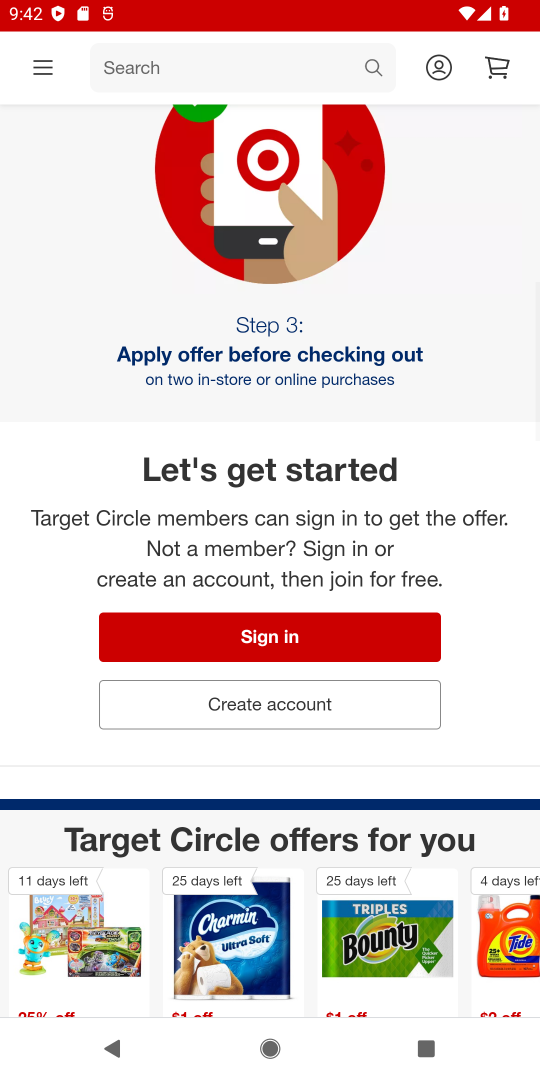
Step 47: drag from (412, 355) to (423, 293)
Your task to perform on an android device: Clear the cart on target.com. Image 48: 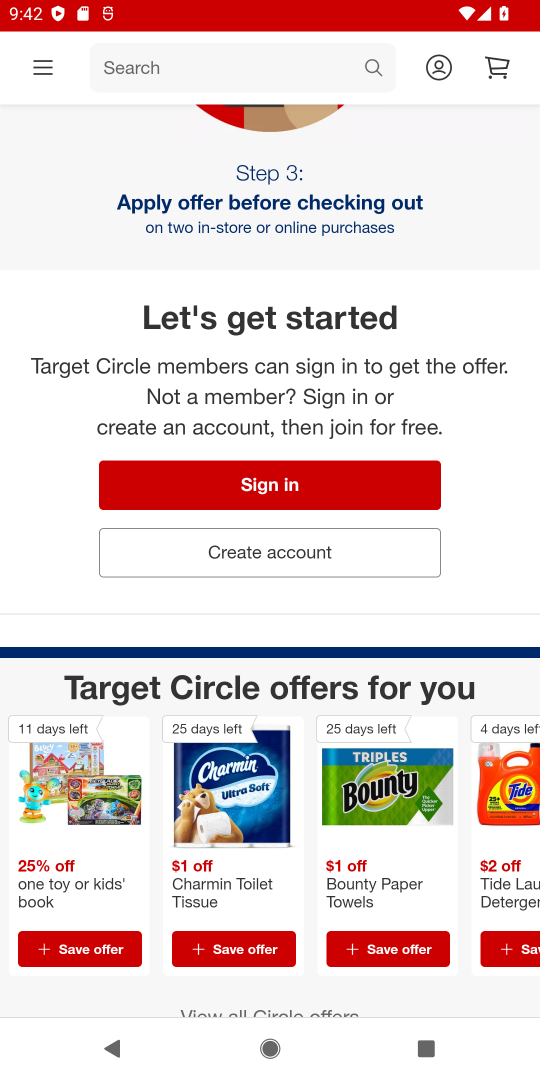
Step 48: click (294, 480)
Your task to perform on an android device: Clear the cart on target.com. Image 49: 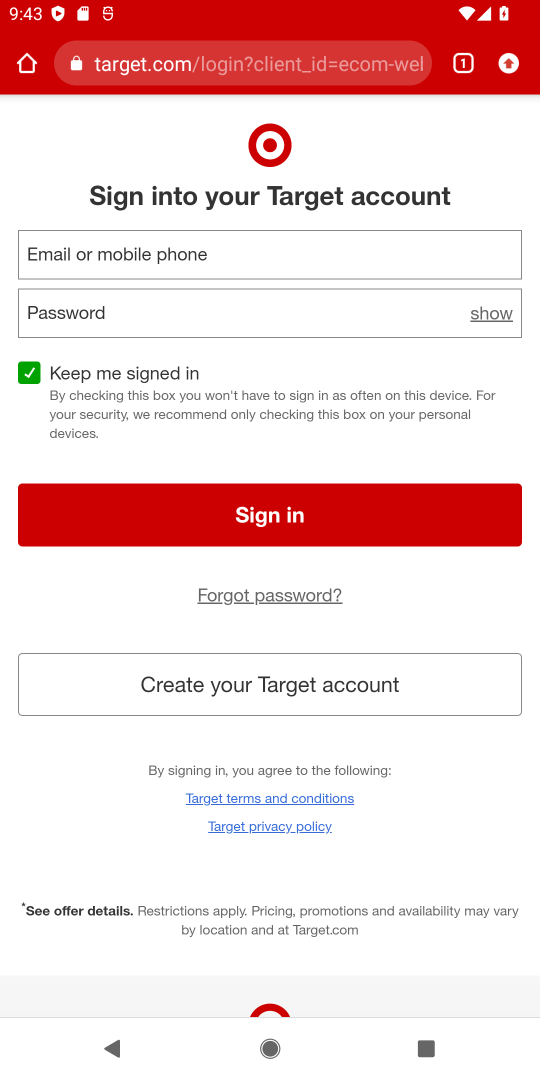
Step 49: task complete